Your task to perform on an android device: Open Google Image 0: 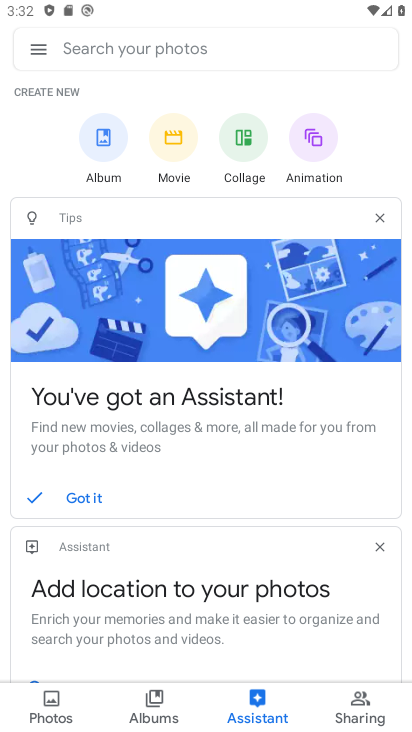
Step 0: press back button
Your task to perform on an android device: Open Google Image 1: 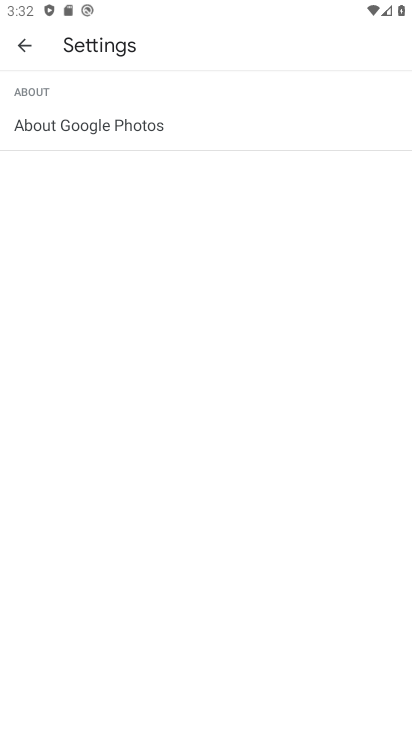
Step 1: press home button
Your task to perform on an android device: Open Google Image 2: 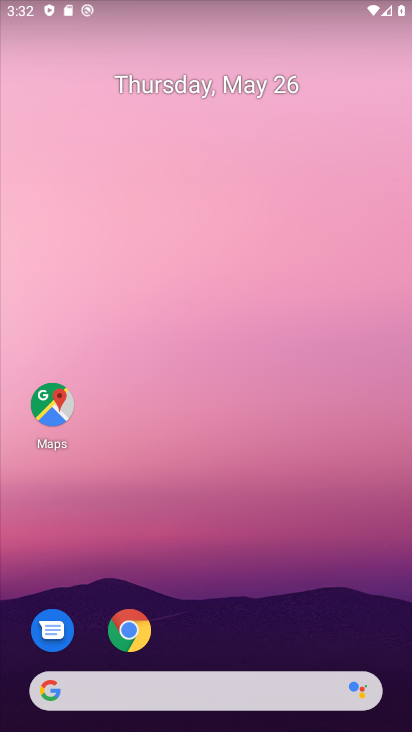
Step 2: drag from (265, 585) to (284, 214)
Your task to perform on an android device: Open Google Image 3: 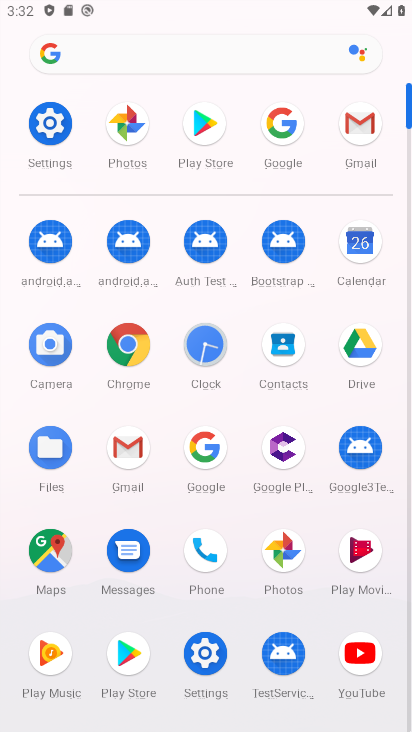
Step 3: click (279, 124)
Your task to perform on an android device: Open Google Image 4: 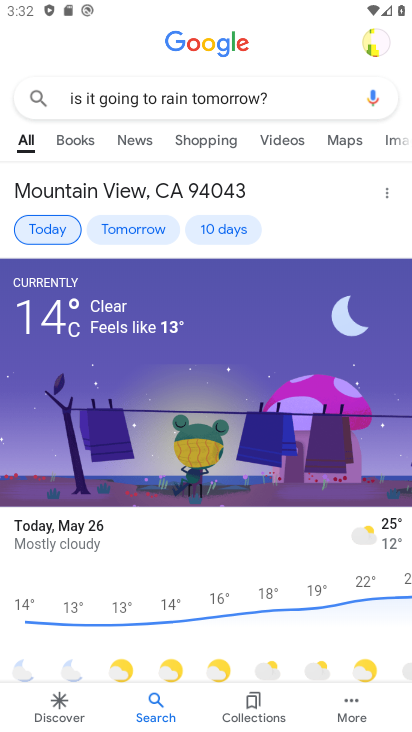
Step 4: task complete